Your task to perform on an android device: toggle airplane mode Image 0: 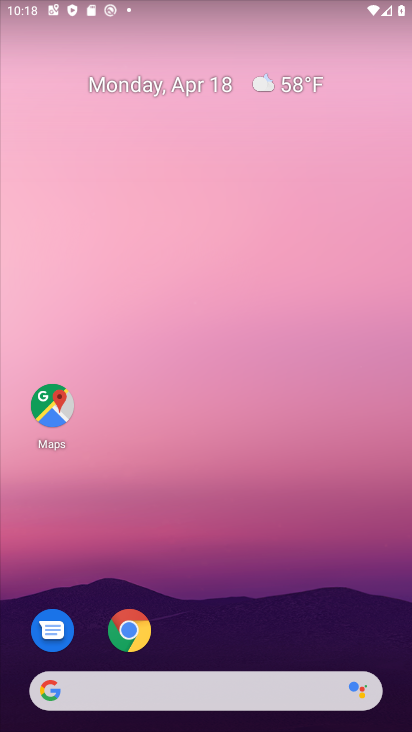
Step 0: drag from (217, 3) to (171, 634)
Your task to perform on an android device: toggle airplane mode Image 1: 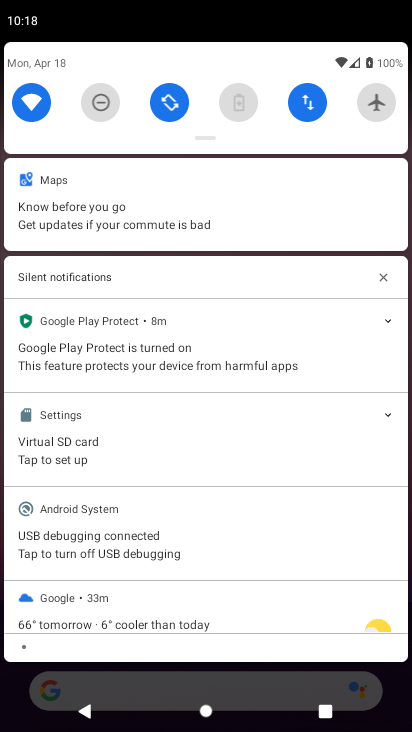
Step 1: click (374, 95)
Your task to perform on an android device: toggle airplane mode Image 2: 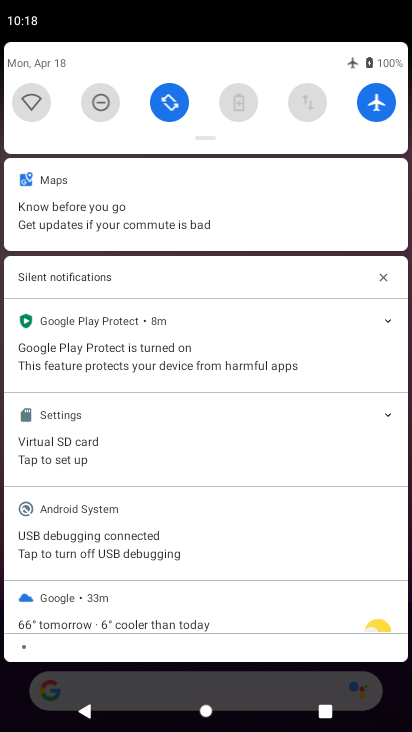
Step 2: click (374, 95)
Your task to perform on an android device: toggle airplane mode Image 3: 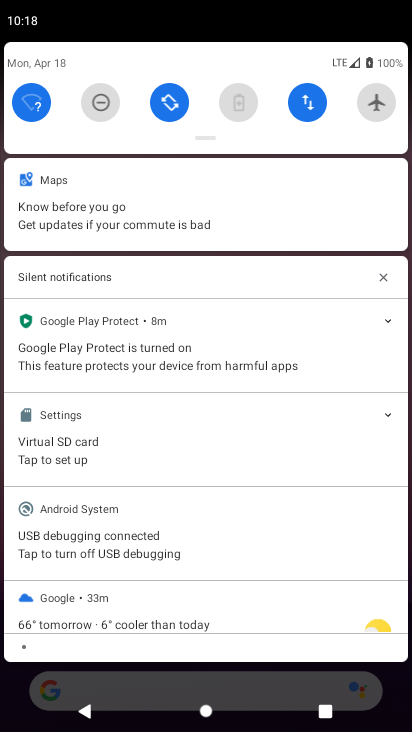
Step 3: task complete